Your task to perform on an android device: Go to internet settings Image 0: 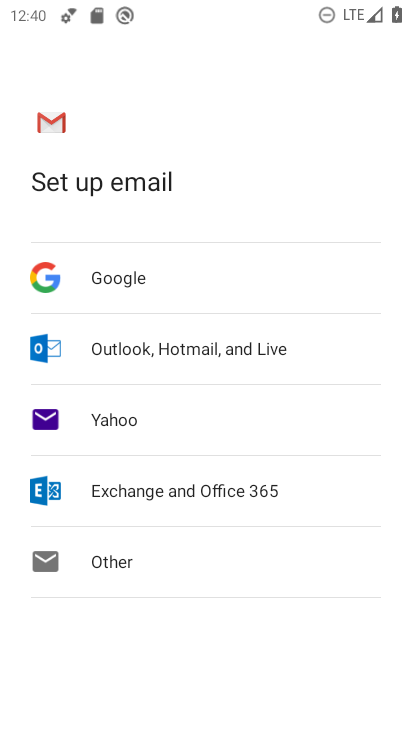
Step 0: press home button
Your task to perform on an android device: Go to internet settings Image 1: 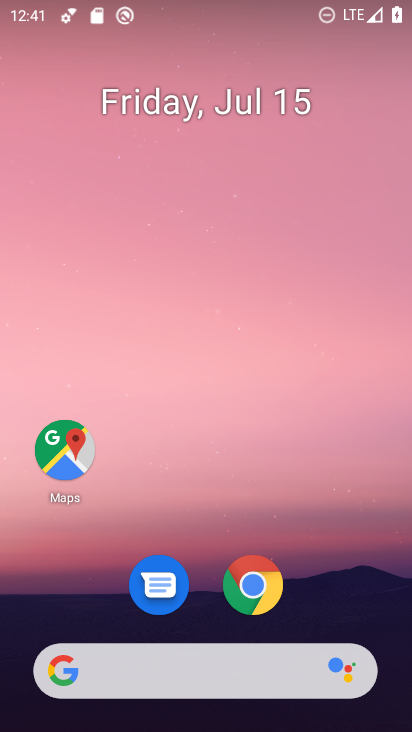
Step 1: drag from (316, 572) to (296, 58)
Your task to perform on an android device: Go to internet settings Image 2: 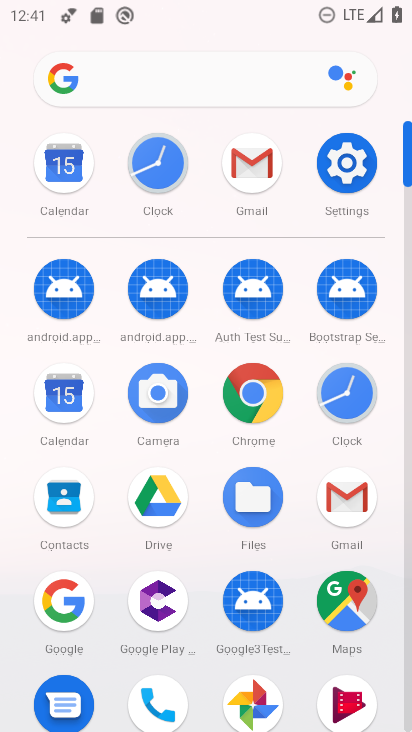
Step 2: click (340, 172)
Your task to perform on an android device: Go to internet settings Image 3: 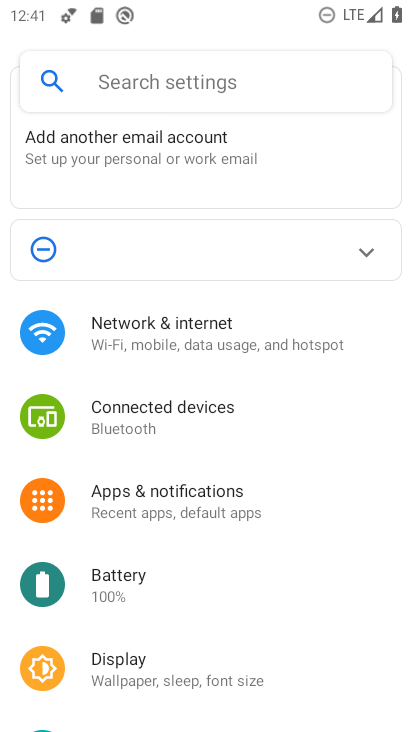
Step 3: click (247, 341)
Your task to perform on an android device: Go to internet settings Image 4: 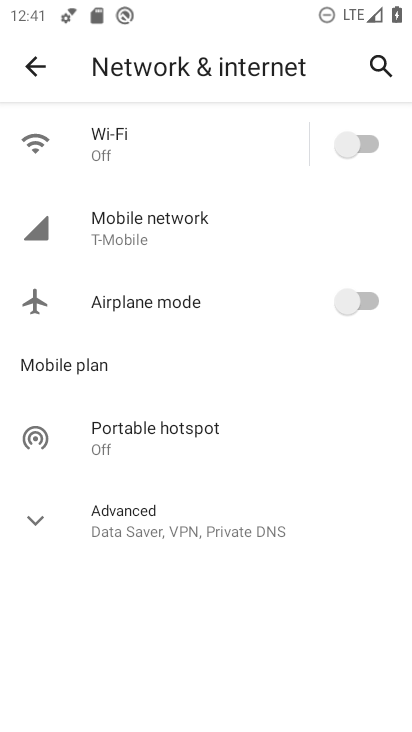
Step 4: task complete